Your task to perform on an android device: turn off javascript in the chrome app Image 0: 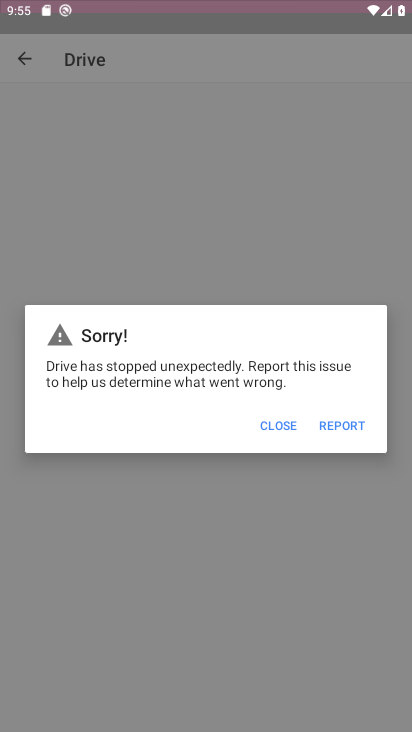
Step 0: drag from (234, 109) to (283, 136)
Your task to perform on an android device: turn off javascript in the chrome app Image 1: 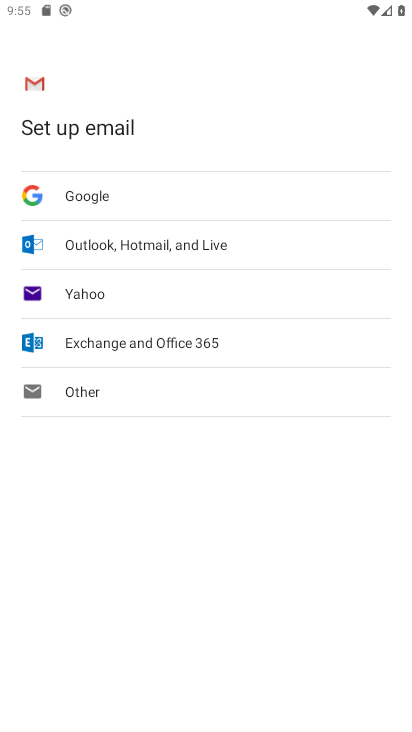
Step 1: press home button
Your task to perform on an android device: turn off javascript in the chrome app Image 2: 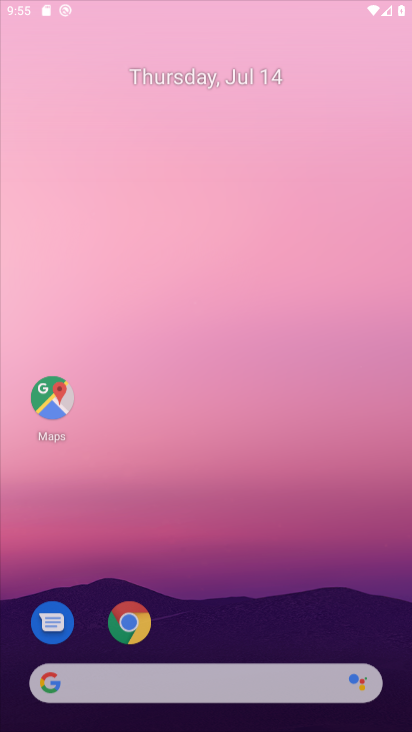
Step 2: drag from (234, 556) to (246, 168)
Your task to perform on an android device: turn off javascript in the chrome app Image 3: 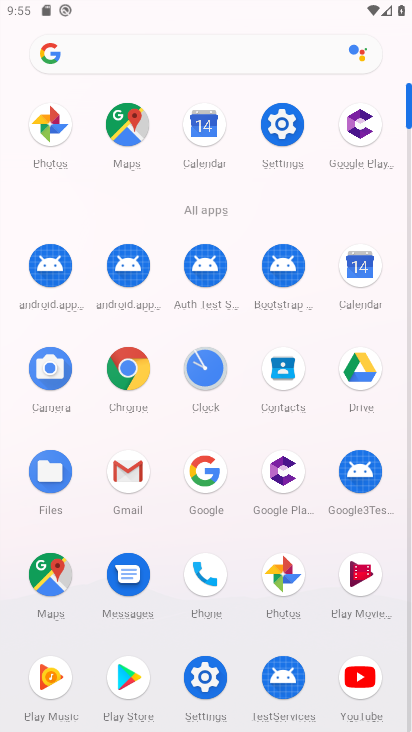
Step 3: click (134, 365)
Your task to perform on an android device: turn off javascript in the chrome app Image 4: 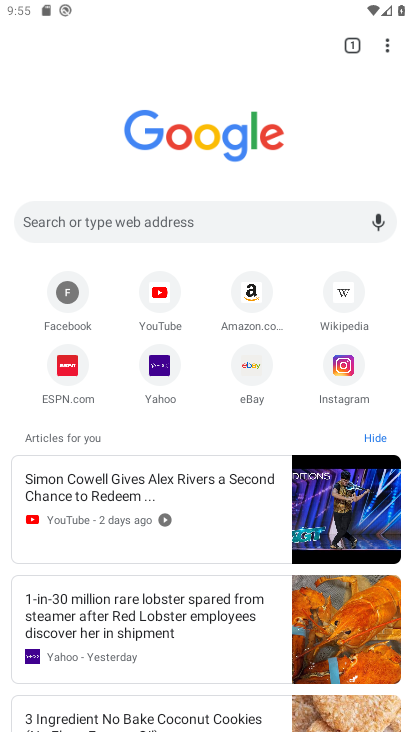
Step 4: click (387, 38)
Your task to perform on an android device: turn off javascript in the chrome app Image 5: 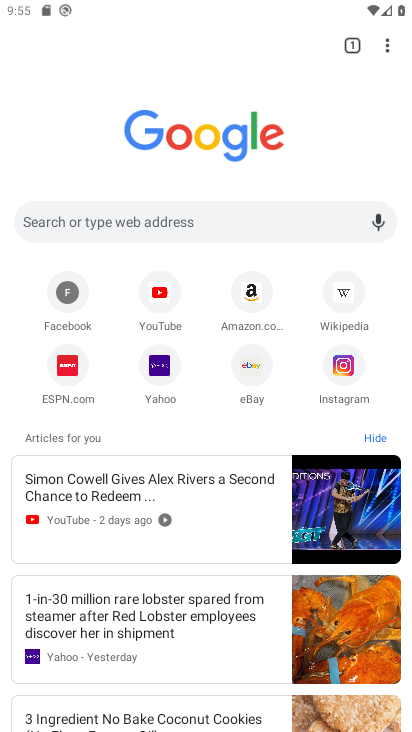
Step 5: drag from (392, 36) to (237, 370)
Your task to perform on an android device: turn off javascript in the chrome app Image 6: 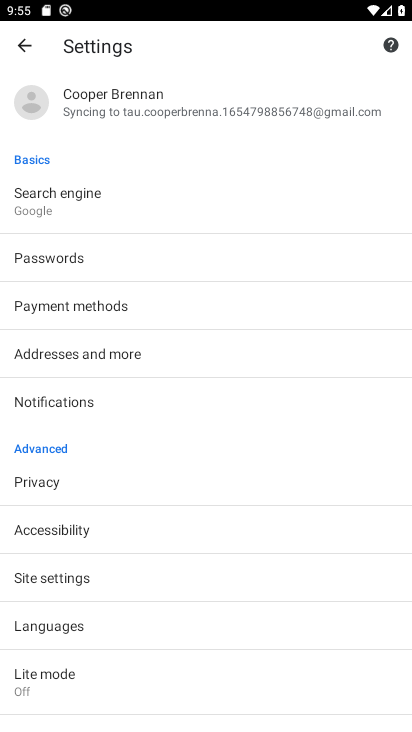
Step 6: click (91, 568)
Your task to perform on an android device: turn off javascript in the chrome app Image 7: 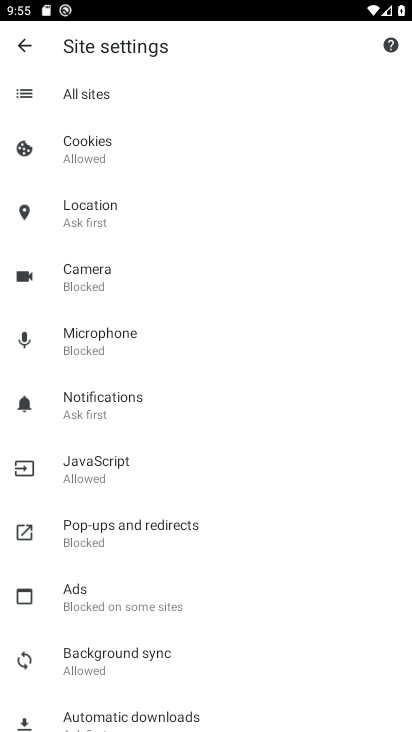
Step 7: click (126, 470)
Your task to perform on an android device: turn off javascript in the chrome app Image 8: 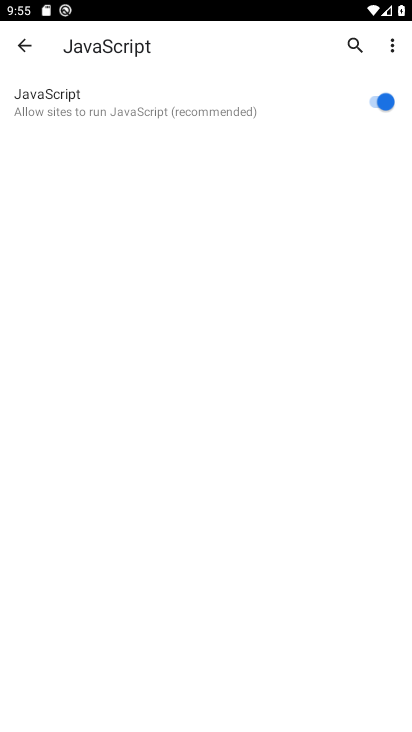
Step 8: drag from (212, 498) to (290, 236)
Your task to perform on an android device: turn off javascript in the chrome app Image 9: 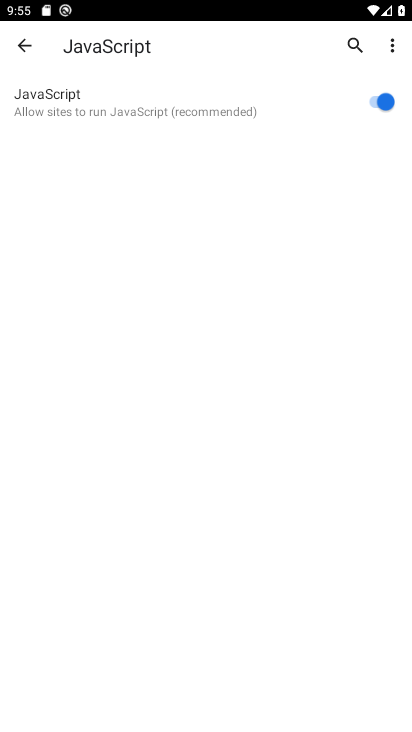
Step 9: click (390, 104)
Your task to perform on an android device: turn off javascript in the chrome app Image 10: 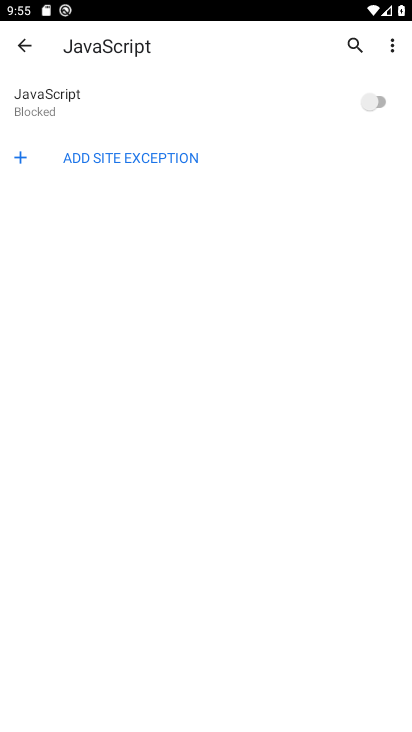
Step 10: task complete